Your task to perform on an android device: Open Android settings Image 0: 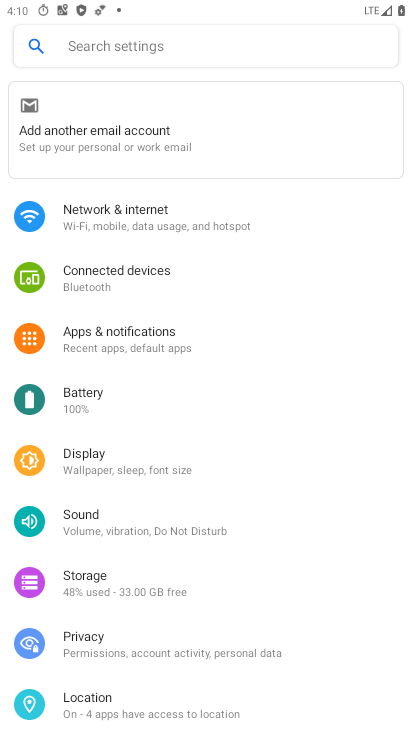
Step 0: drag from (201, 711) to (176, 75)
Your task to perform on an android device: Open Android settings Image 1: 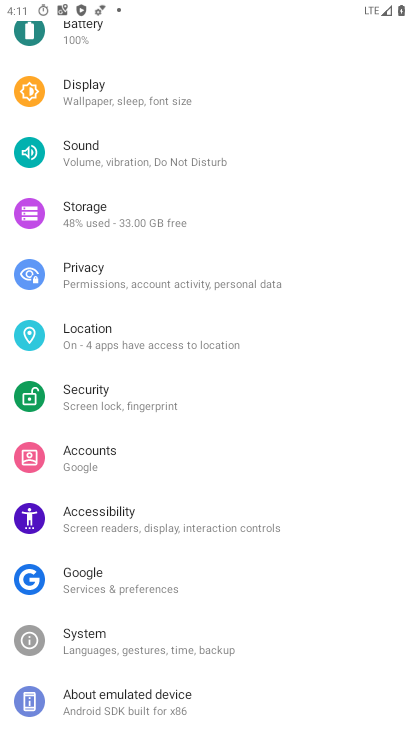
Step 1: click (183, 689)
Your task to perform on an android device: Open Android settings Image 2: 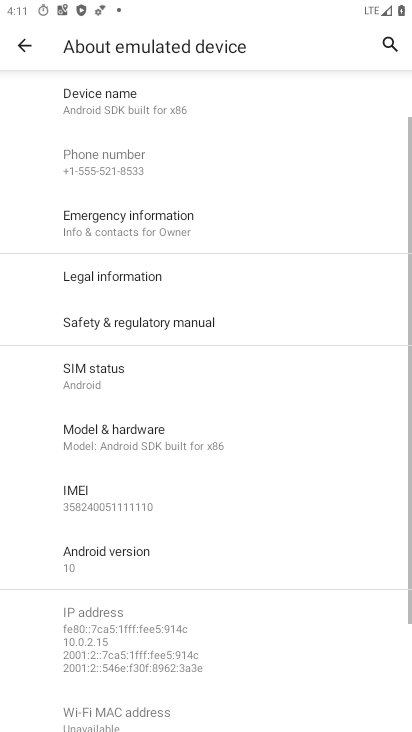
Step 2: task complete